Your task to perform on an android device: When is my next meeting? Image 0: 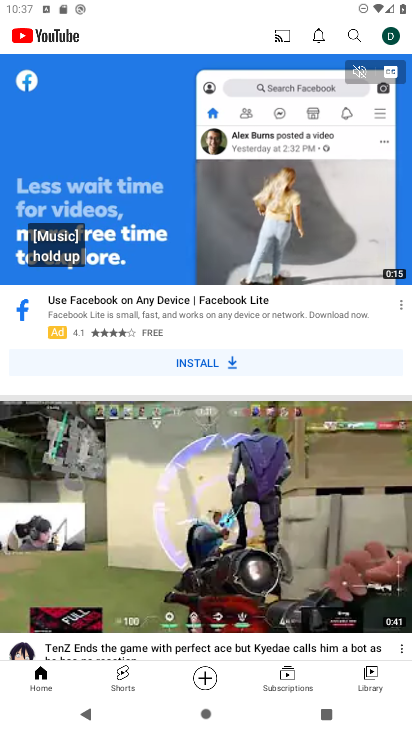
Step 0: press home button
Your task to perform on an android device: When is my next meeting? Image 1: 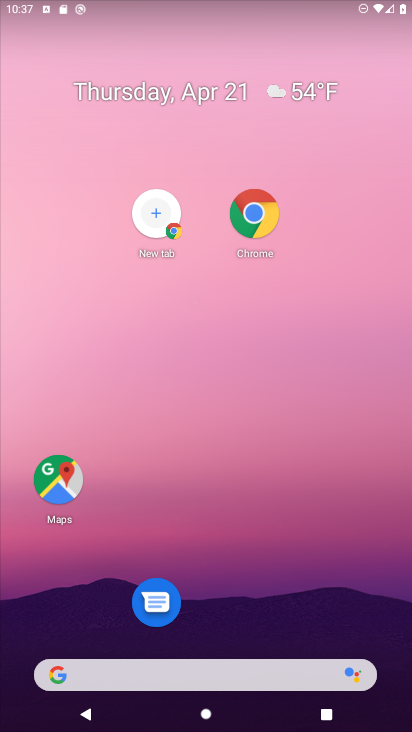
Step 1: drag from (233, 616) to (163, 57)
Your task to perform on an android device: When is my next meeting? Image 2: 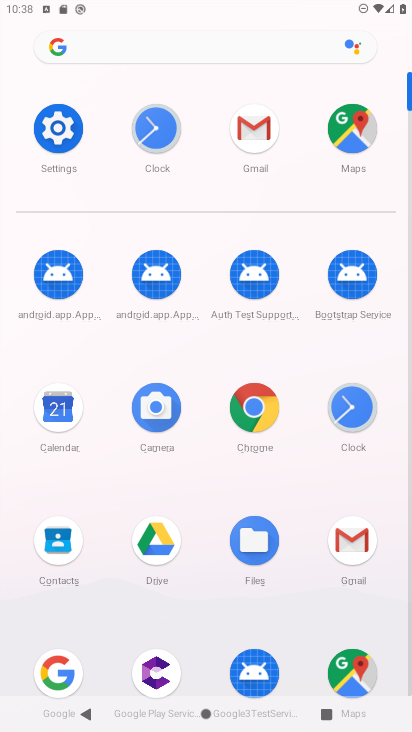
Step 2: click (48, 415)
Your task to perform on an android device: When is my next meeting? Image 3: 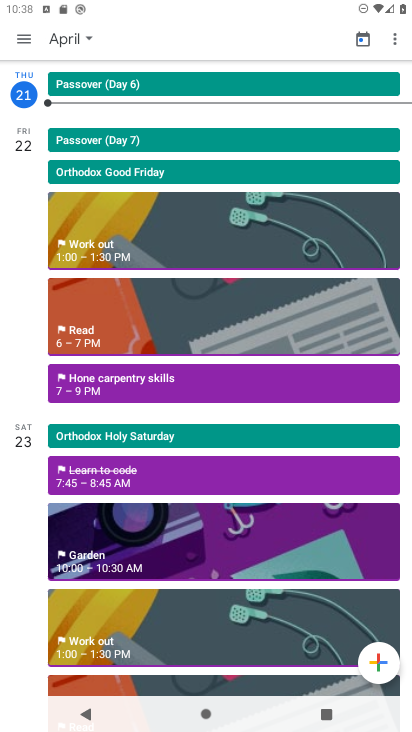
Step 3: task complete